Your task to perform on an android device: star an email in the gmail app Image 0: 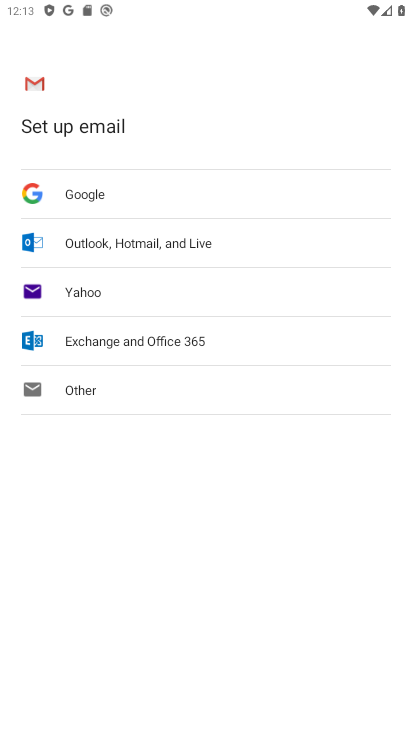
Step 0: press home button
Your task to perform on an android device: star an email in the gmail app Image 1: 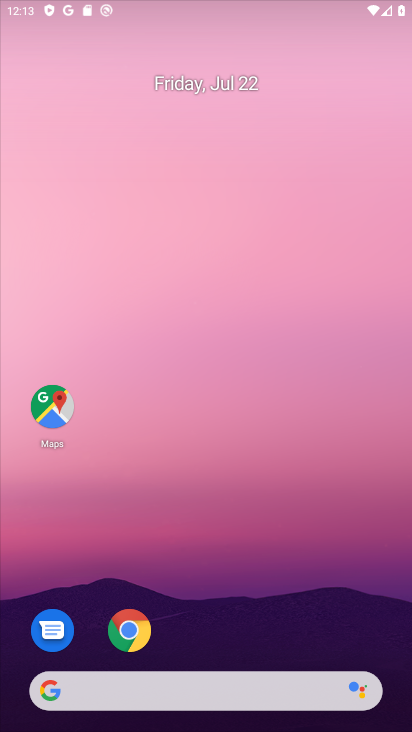
Step 1: drag from (201, 584) to (181, 110)
Your task to perform on an android device: star an email in the gmail app Image 2: 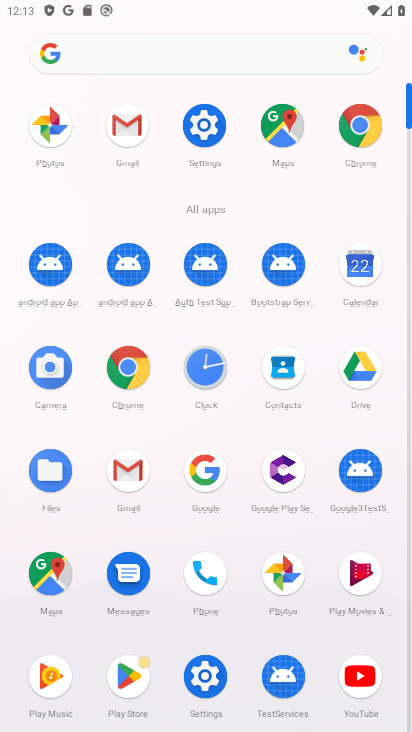
Step 2: click (134, 124)
Your task to perform on an android device: star an email in the gmail app Image 3: 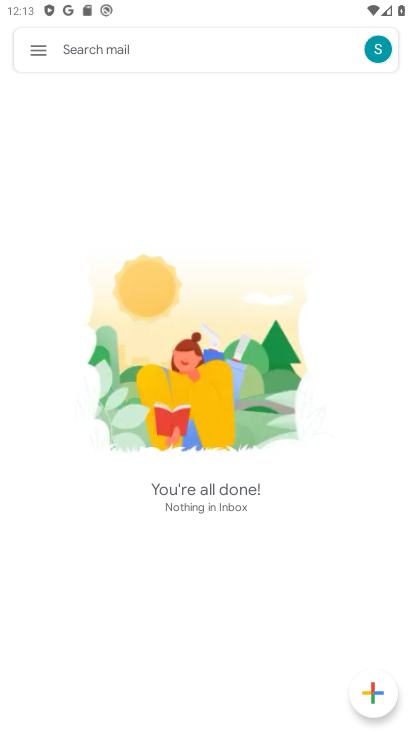
Step 3: click (38, 48)
Your task to perform on an android device: star an email in the gmail app Image 4: 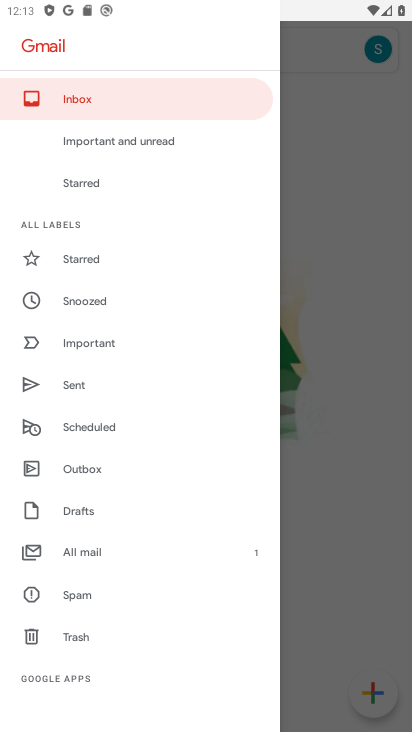
Step 4: click (82, 556)
Your task to perform on an android device: star an email in the gmail app Image 5: 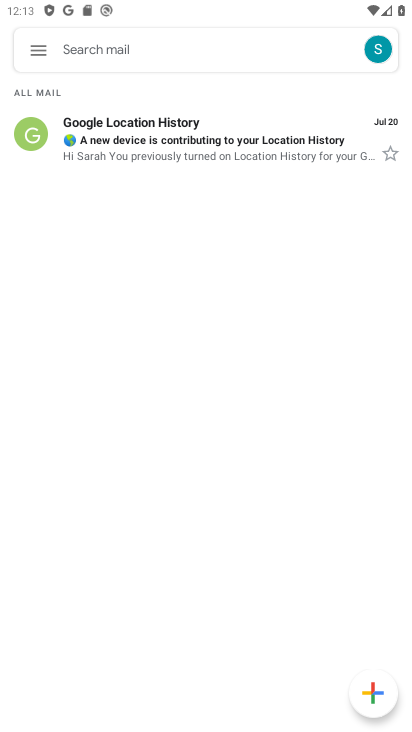
Step 5: click (391, 150)
Your task to perform on an android device: star an email in the gmail app Image 6: 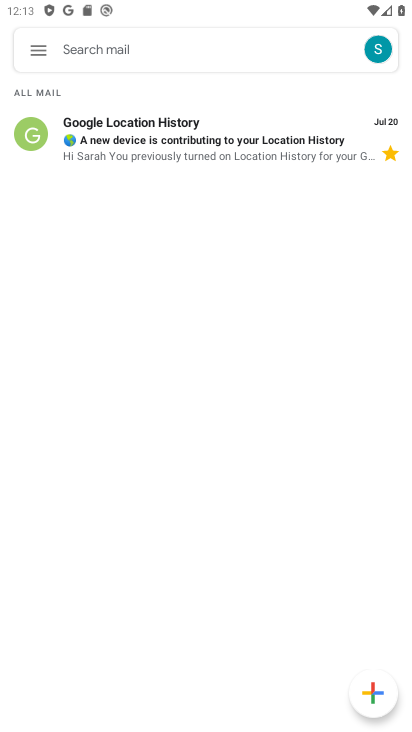
Step 6: task complete